Your task to perform on an android device: Is it going to rain tomorrow? Image 0: 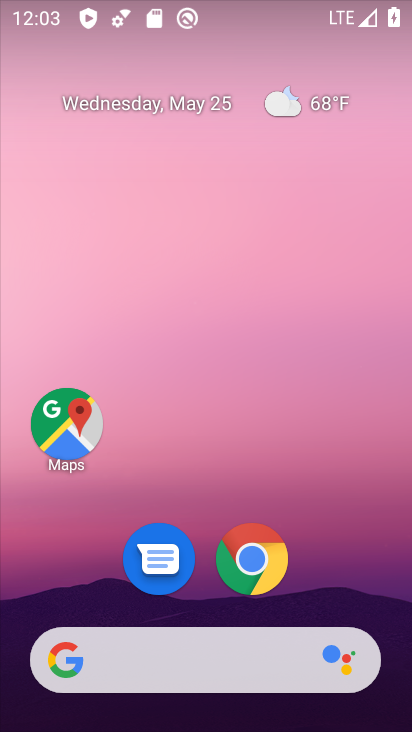
Step 0: click (317, 101)
Your task to perform on an android device: Is it going to rain tomorrow? Image 1: 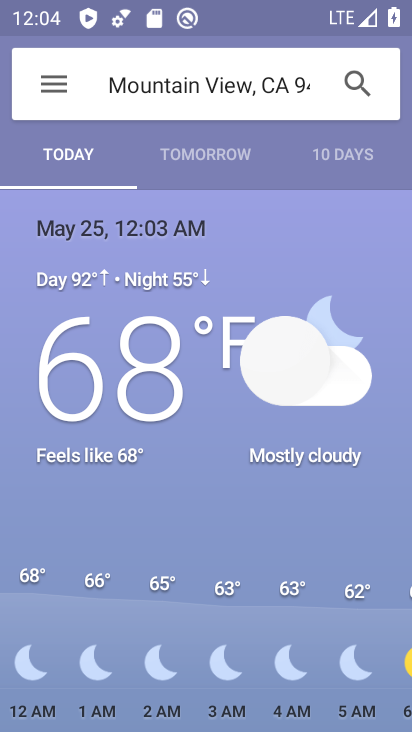
Step 1: click (202, 167)
Your task to perform on an android device: Is it going to rain tomorrow? Image 2: 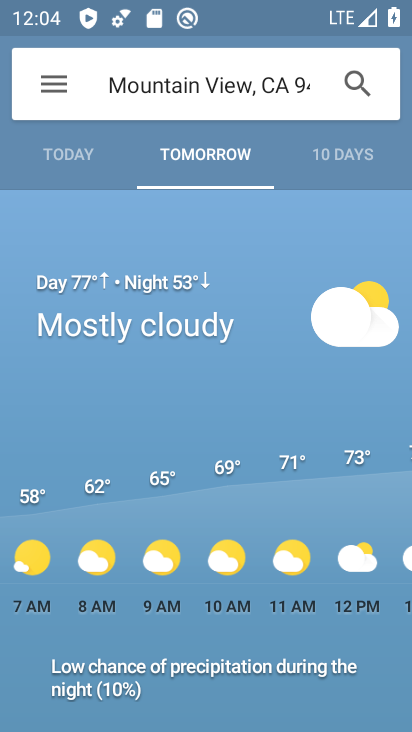
Step 2: task complete